Your task to perform on an android device: Toggle the flashlight Image 0: 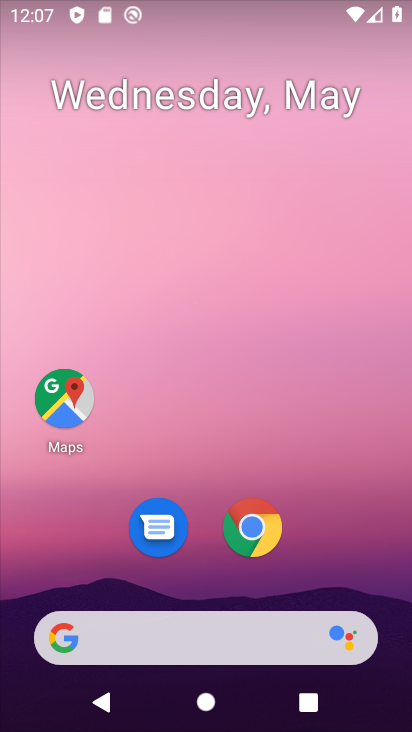
Step 0: drag from (339, 529) to (269, 729)
Your task to perform on an android device: Toggle the flashlight Image 1: 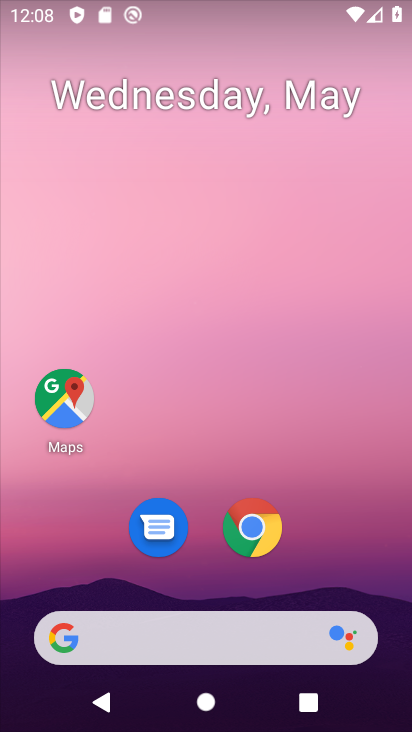
Step 1: task complete